Your task to perform on an android device: check the backup settings in the google photos Image 0: 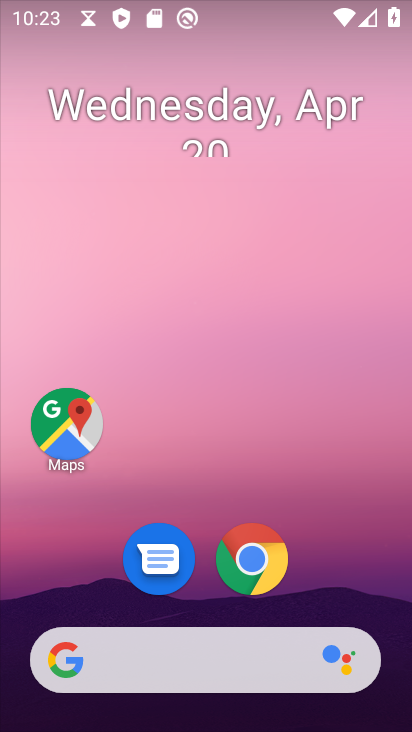
Step 0: drag from (201, 706) to (201, 114)
Your task to perform on an android device: check the backup settings in the google photos Image 1: 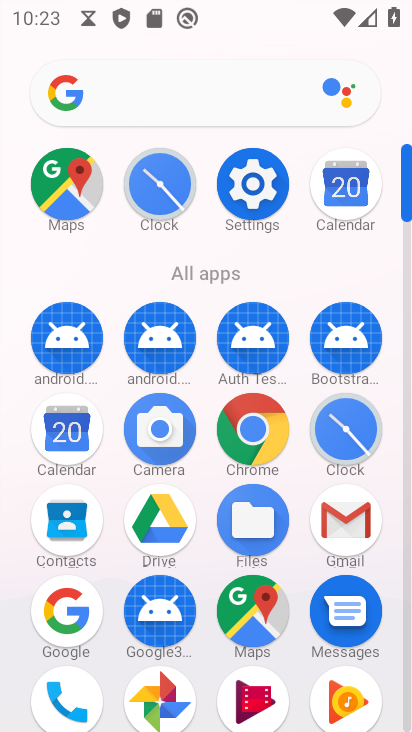
Step 1: drag from (210, 546) to (210, 183)
Your task to perform on an android device: check the backup settings in the google photos Image 2: 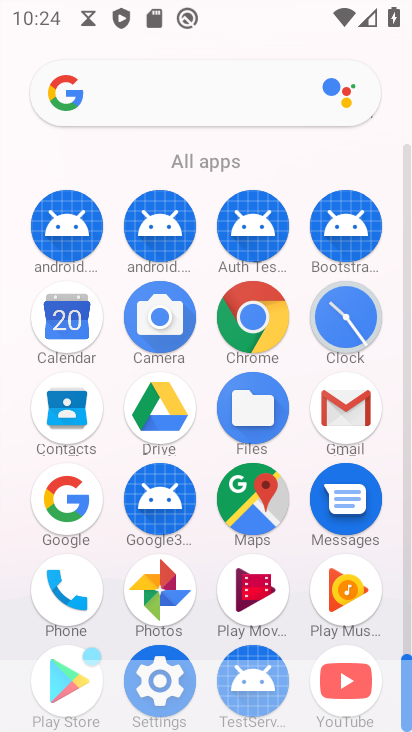
Step 2: click (156, 672)
Your task to perform on an android device: check the backup settings in the google photos Image 3: 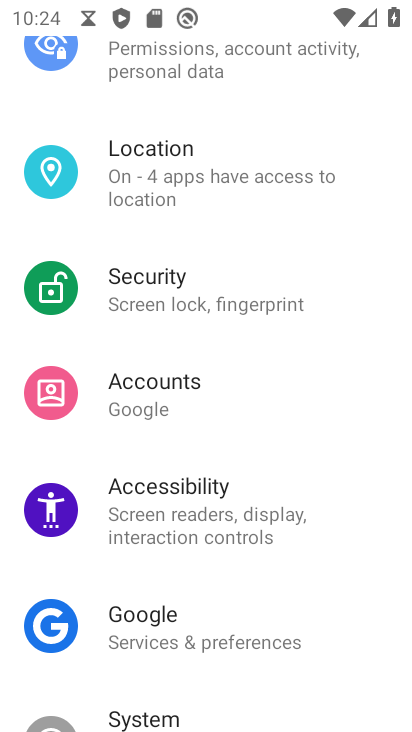
Step 3: press back button
Your task to perform on an android device: check the backup settings in the google photos Image 4: 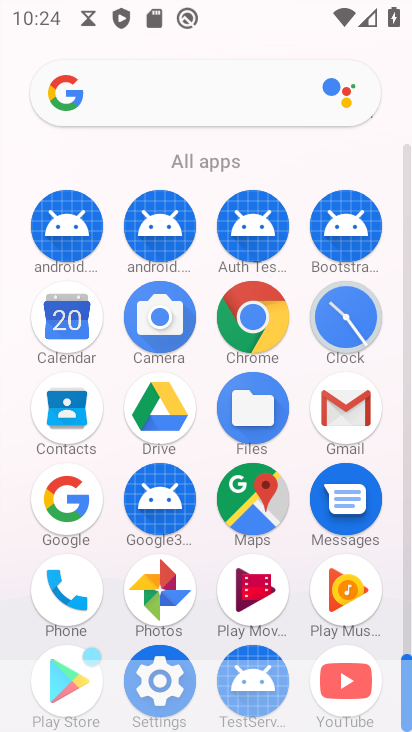
Step 4: click (156, 587)
Your task to perform on an android device: check the backup settings in the google photos Image 5: 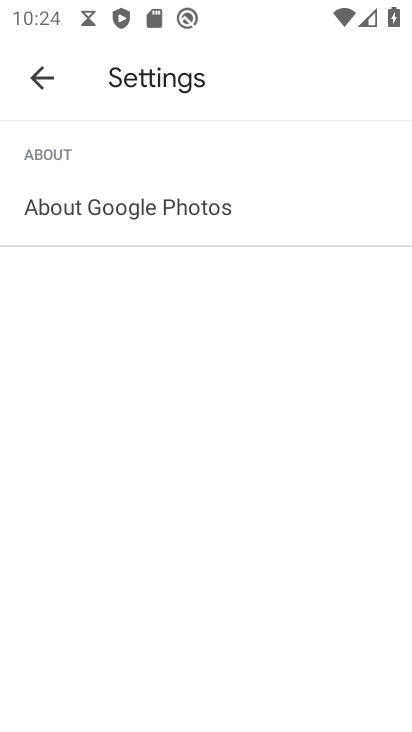
Step 5: click (40, 67)
Your task to perform on an android device: check the backup settings in the google photos Image 6: 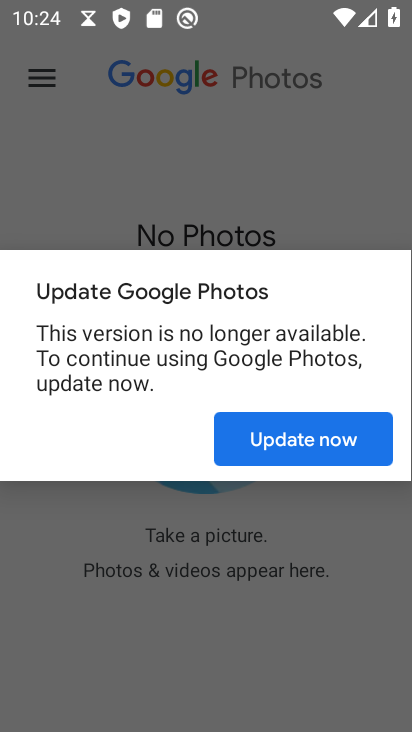
Step 6: click (295, 435)
Your task to perform on an android device: check the backup settings in the google photos Image 7: 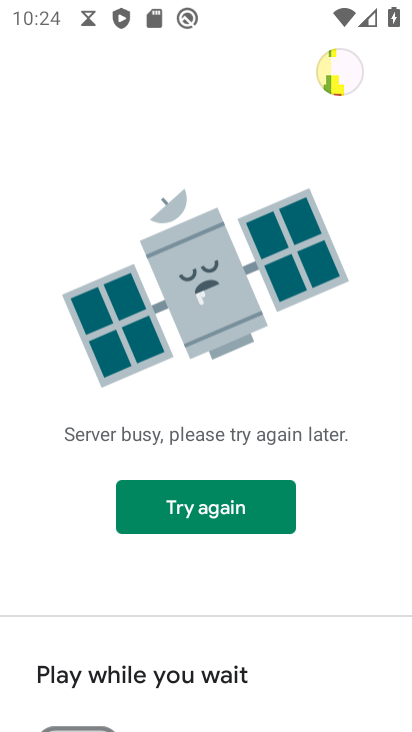
Step 7: click (210, 505)
Your task to perform on an android device: check the backup settings in the google photos Image 8: 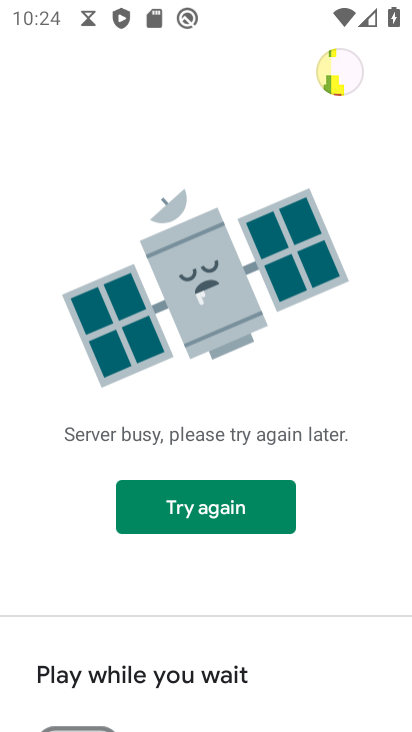
Step 8: task complete